Your task to perform on an android device: Open CNN.com Image 0: 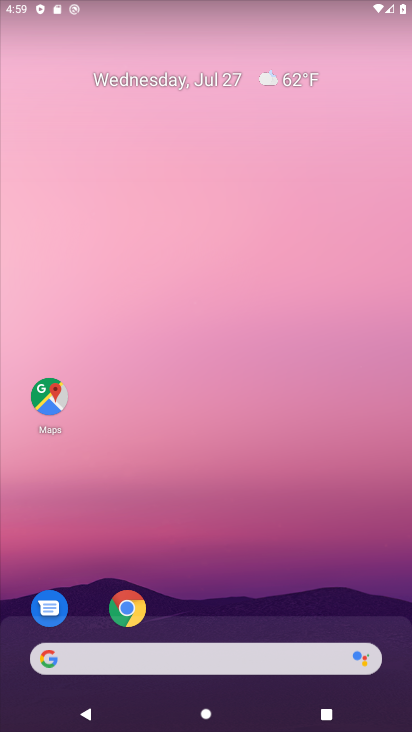
Step 0: click (134, 676)
Your task to perform on an android device: Open CNN.com Image 1: 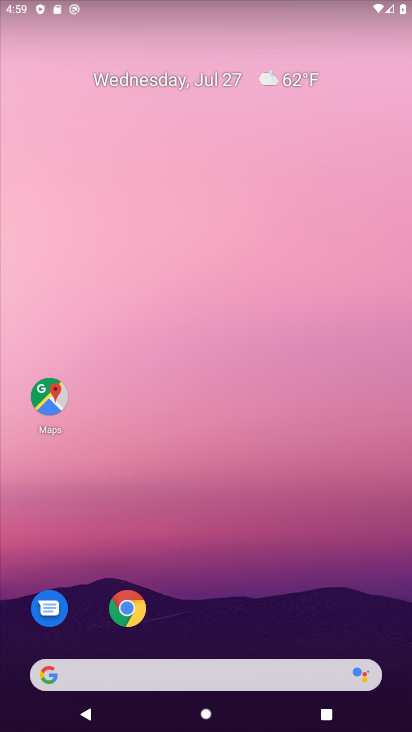
Step 1: type "cnnn"
Your task to perform on an android device: Open CNN.com Image 2: 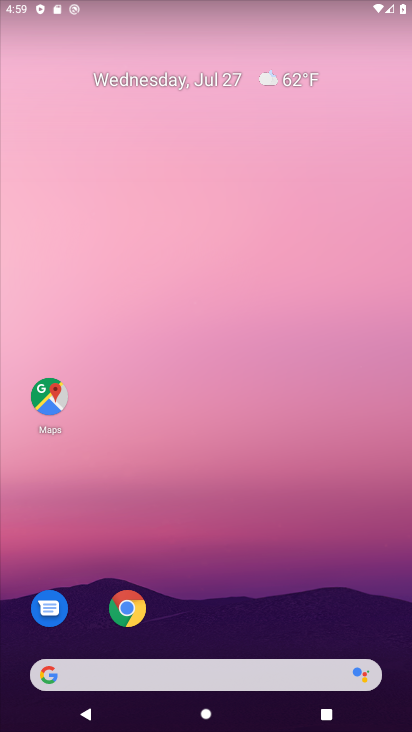
Step 2: click (123, 608)
Your task to perform on an android device: Open CNN.com Image 3: 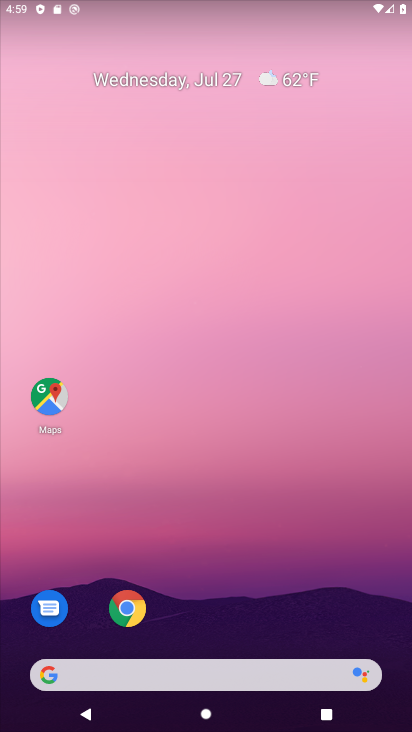
Step 3: click (123, 608)
Your task to perform on an android device: Open CNN.com Image 4: 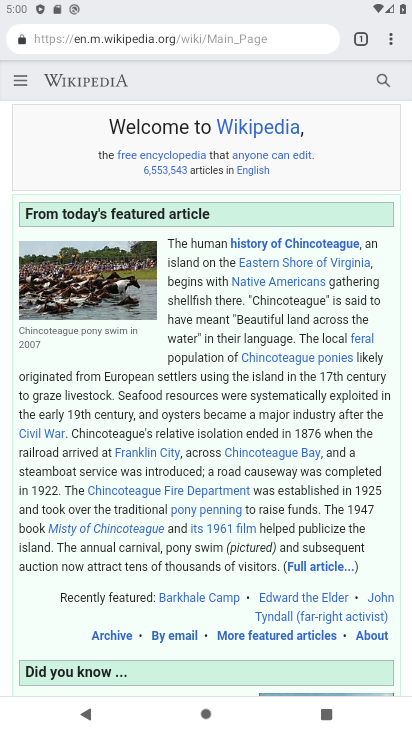
Step 4: click (359, 48)
Your task to perform on an android device: Open CNN.com Image 5: 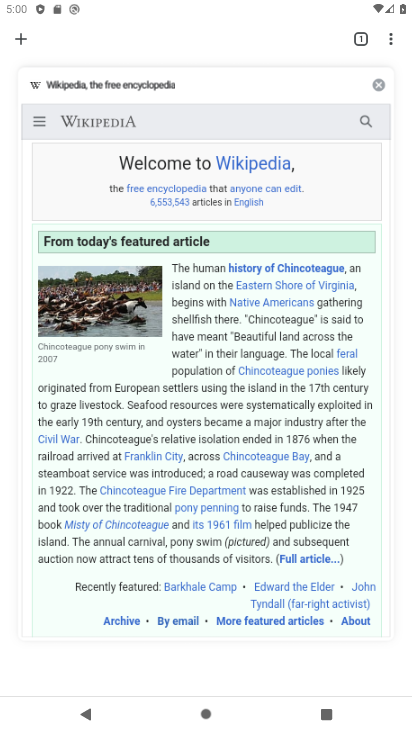
Step 5: click (23, 35)
Your task to perform on an android device: Open CNN.com Image 6: 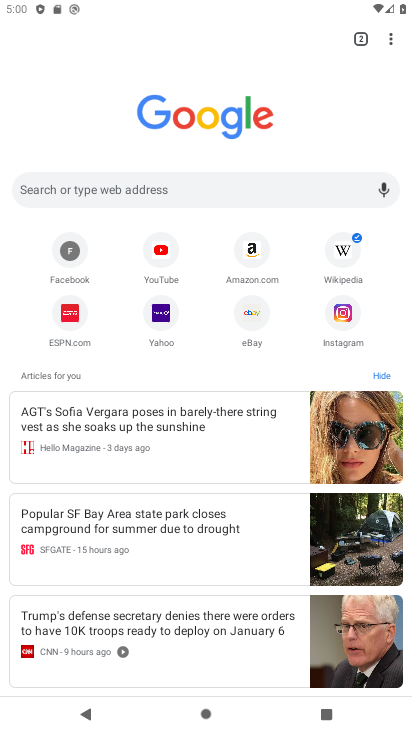
Step 6: click (66, 620)
Your task to perform on an android device: Open CNN.com Image 7: 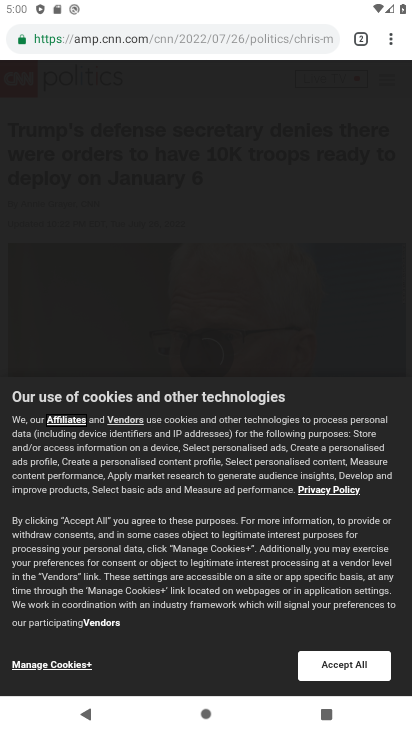
Step 7: task complete